Your task to perform on an android device: Open the calculator Image 0: 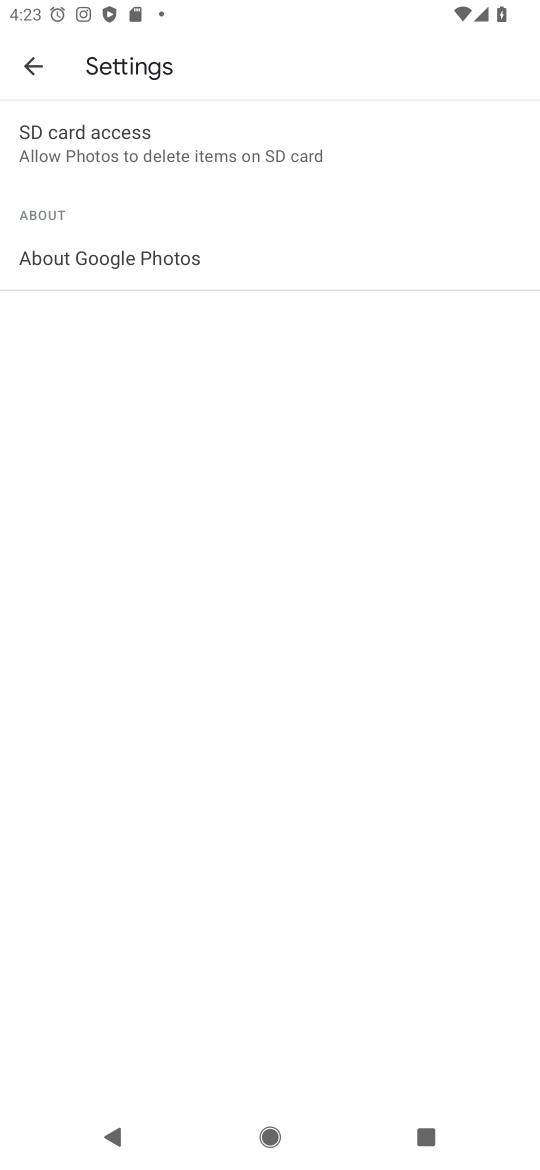
Step 0: press home button
Your task to perform on an android device: Open the calculator Image 1: 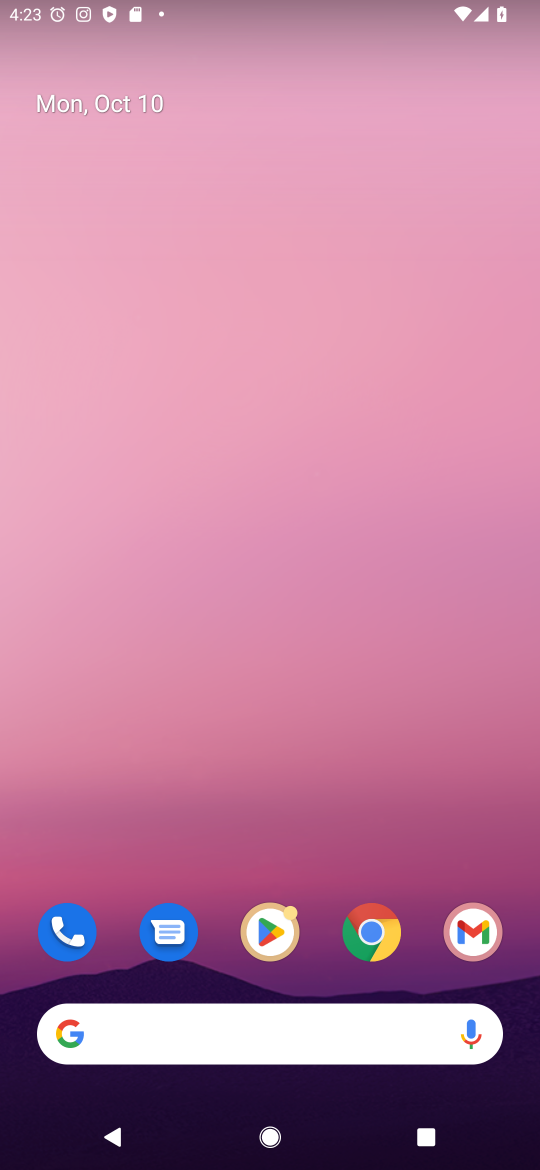
Step 1: drag from (494, 823) to (495, 60)
Your task to perform on an android device: Open the calculator Image 2: 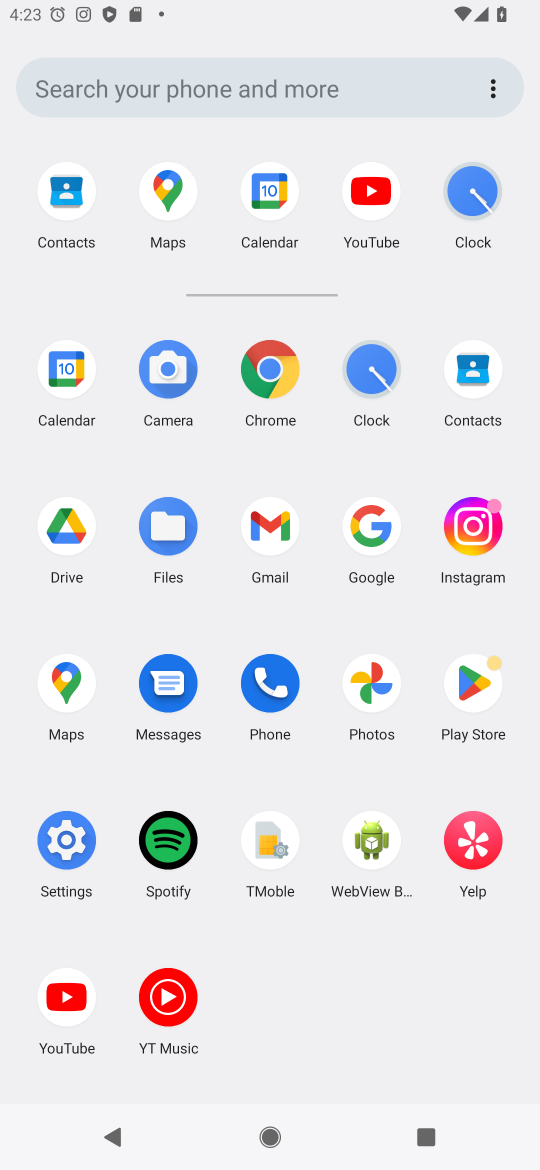
Step 2: click (483, 684)
Your task to perform on an android device: Open the calculator Image 3: 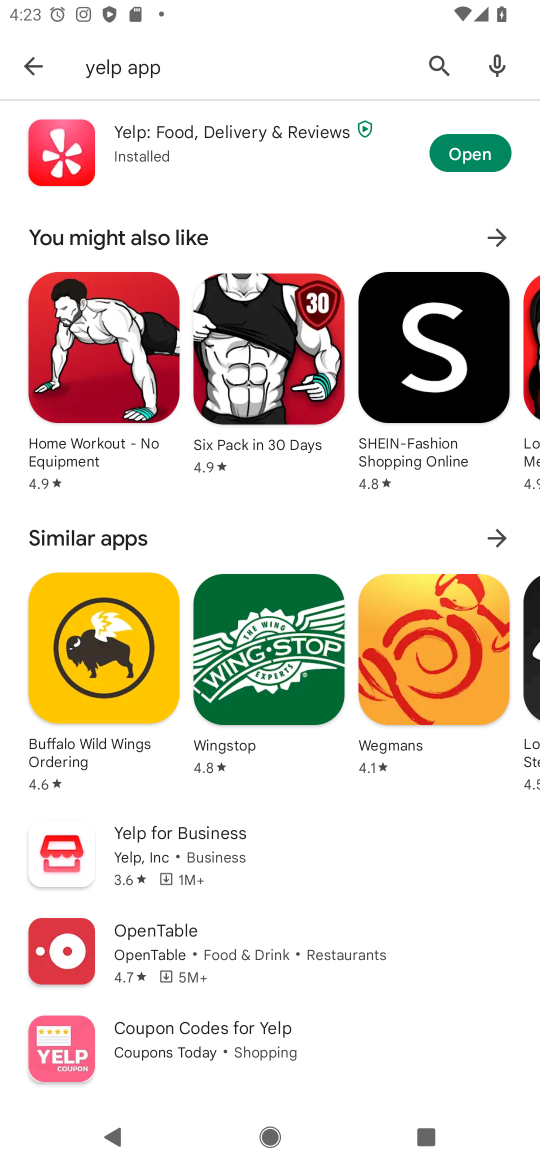
Step 3: click (431, 65)
Your task to perform on an android device: Open the calculator Image 4: 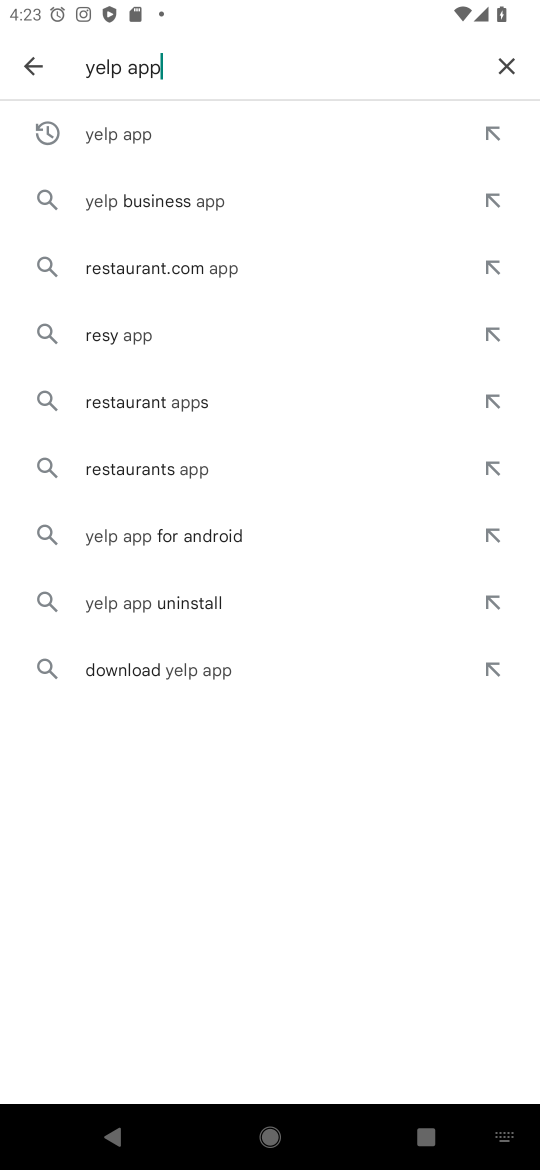
Step 4: click (503, 59)
Your task to perform on an android device: Open the calculator Image 5: 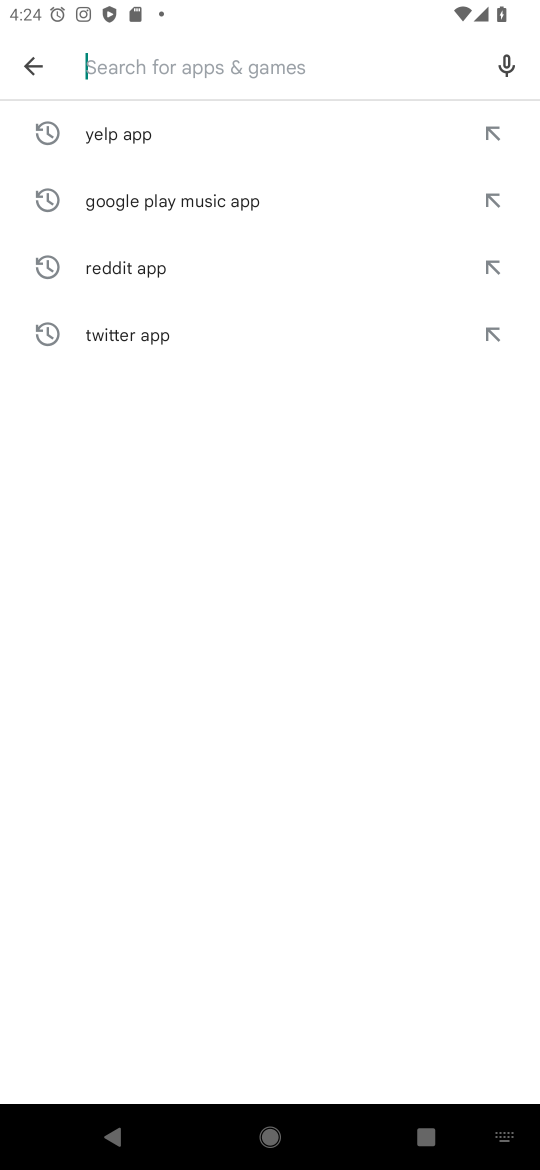
Step 5: type "calculator"
Your task to perform on an android device: Open the calculator Image 6: 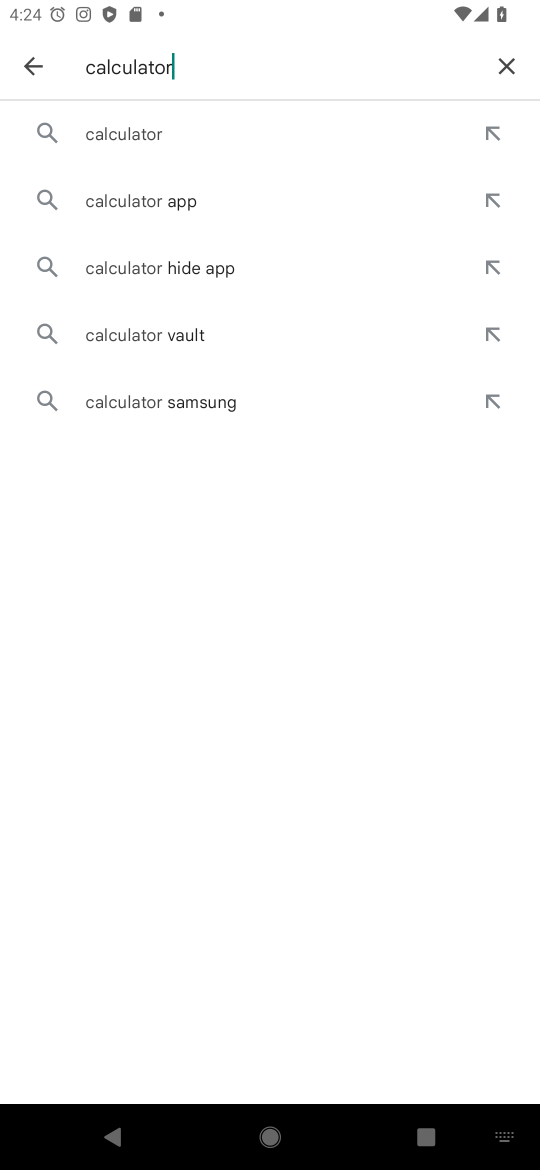
Step 6: click (151, 131)
Your task to perform on an android device: Open the calculator Image 7: 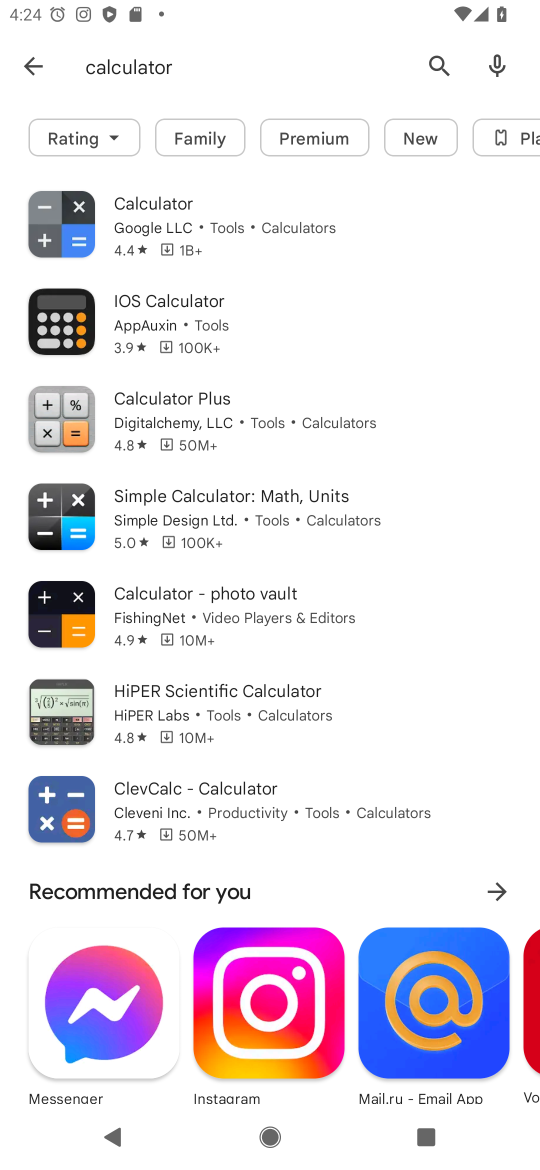
Step 7: click (203, 218)
Your task to perform on an android device: Open the calculator Image 8: 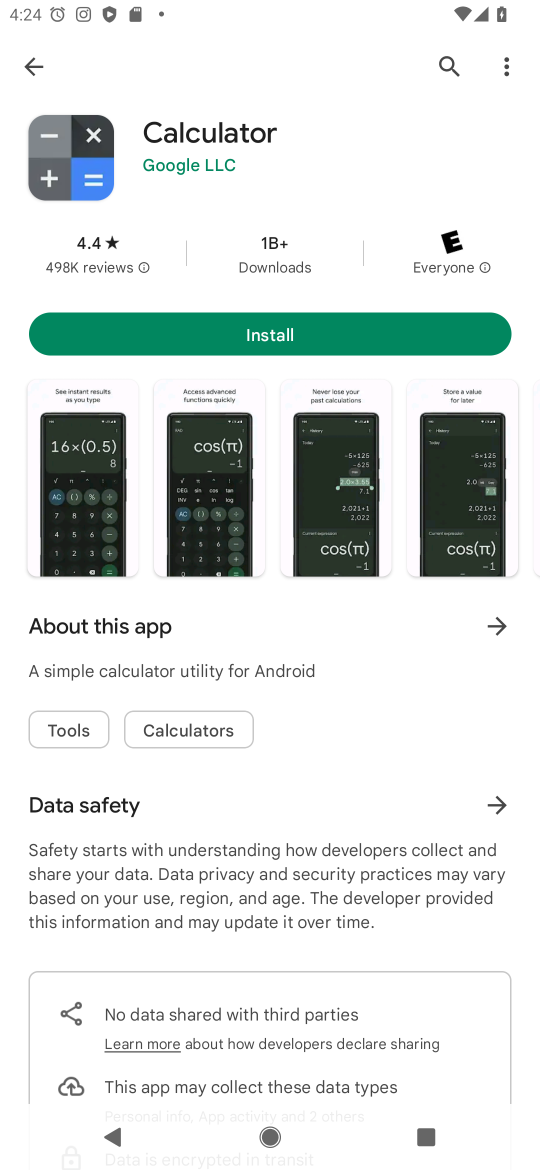
Step 8: task complete